Your task to perform on an android device: Go to battery settings Image 0: 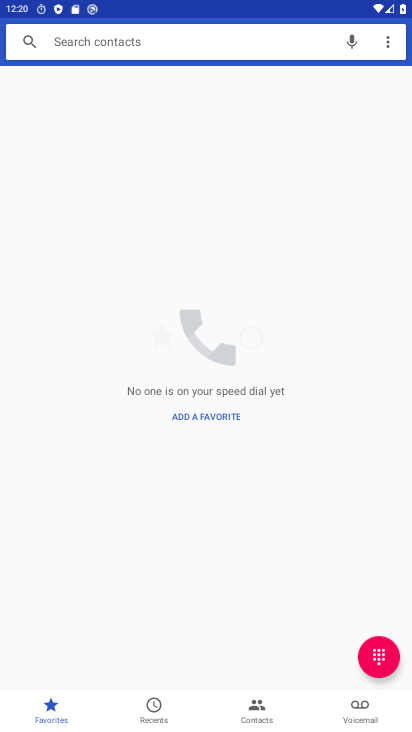
Step 0: press back button
Your task to perform on an android device: Go to battery settings Image 1: 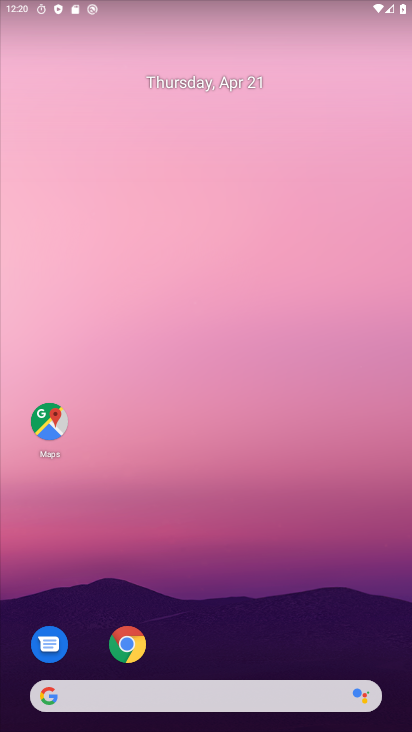
Step 1: drag from (230, 626) to (326, 65)
Your task to perform on an android device: Go to battery settings Image 2: 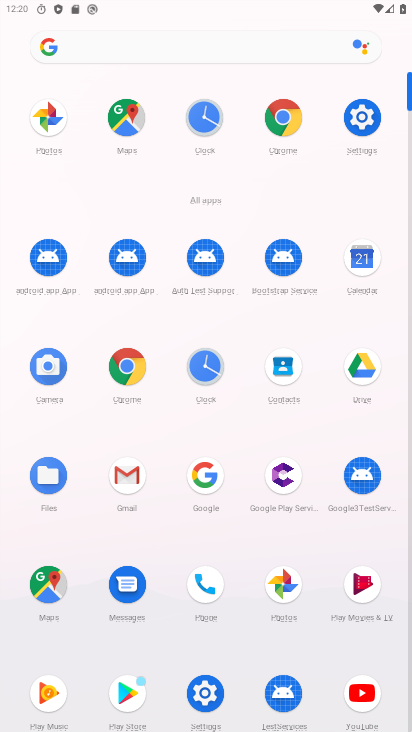
Step 2: click (361, 128)
Your task to perform on an android device: Go to battery settings Image 3: 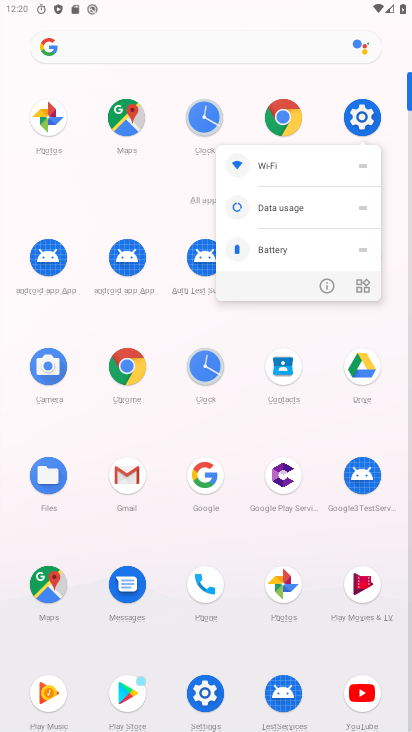
Step 3: click (356, 128)
Your task to perform on an android device: Go to battery settings Image 4: 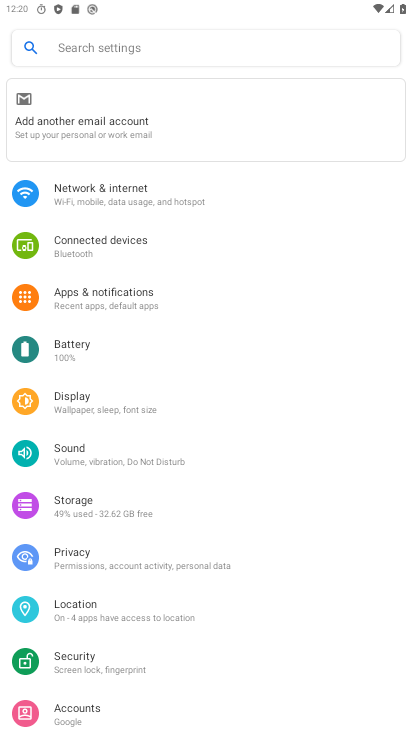
Step 4: click (98, 346)
Your task to perform on an android device: Go to battery settings Image 5: 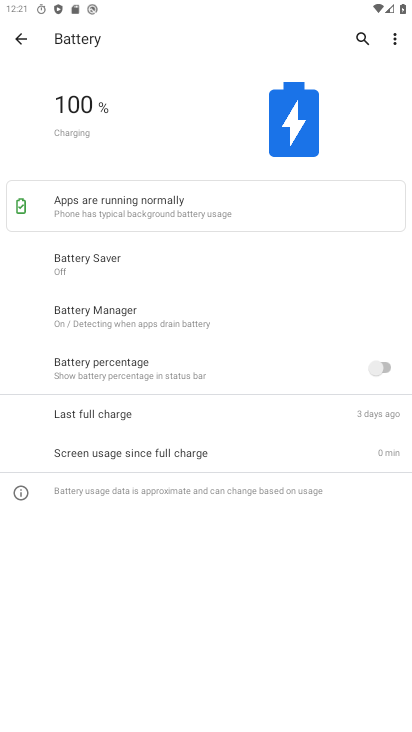
Step 5: task complete